Your task to perform on an android device: Open the calendar app, open the side menu, and click the "Day" option Image 0: 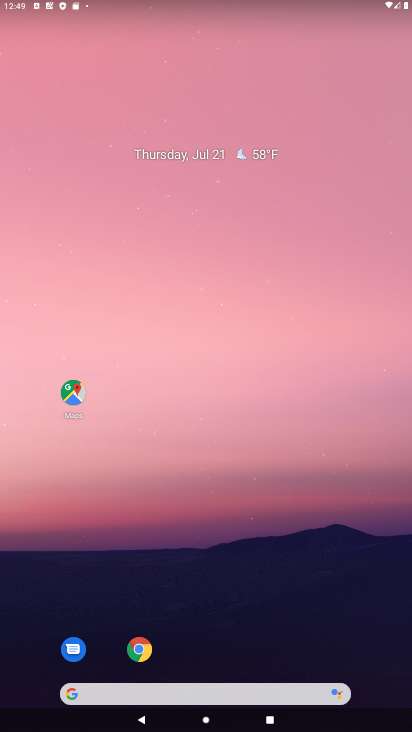
Step 0: drag from (392, 673) to (365, 175)
Your task to perform on an android device: Open the calendar app, open the side menu, and click the "Day" option Image 1: 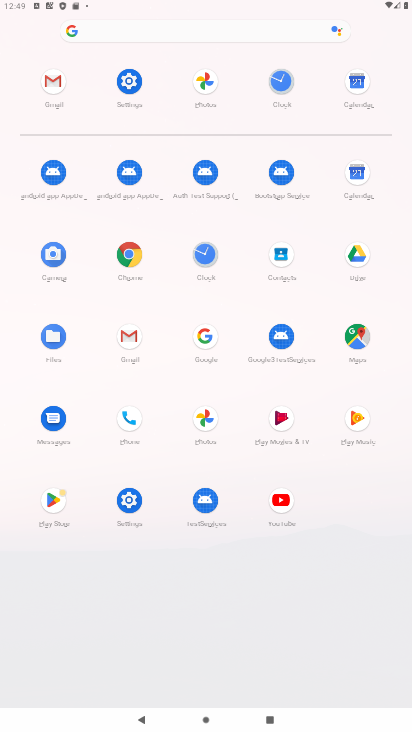
Step 1: click (355, 167)
Your task to perform on an android device: Open the calendar app, open the side menu, and click the "Day" option Image 2: 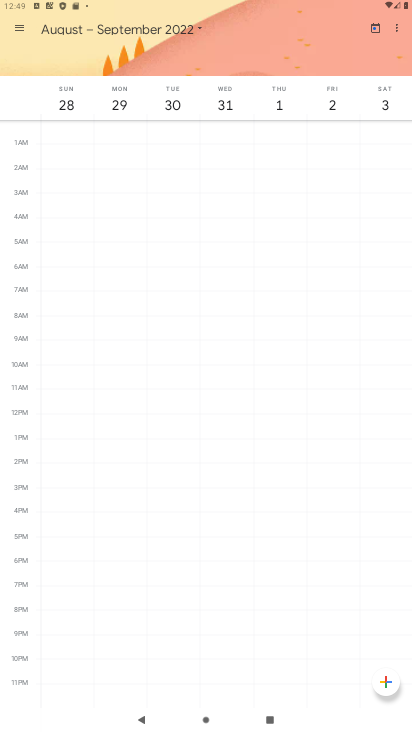
Step 2: click (16, 25)
Your task to perform on an android device: Open the calendar app, open the side menu, and click the "Day" option Image 3: 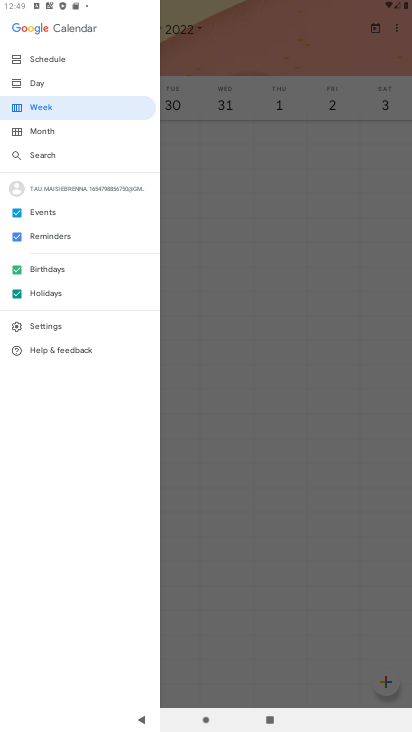
Step 3: click (34, 81)
Your task to perform on an android device: Open the calendar app, open the side menu, and click the "Day" option Image 4: 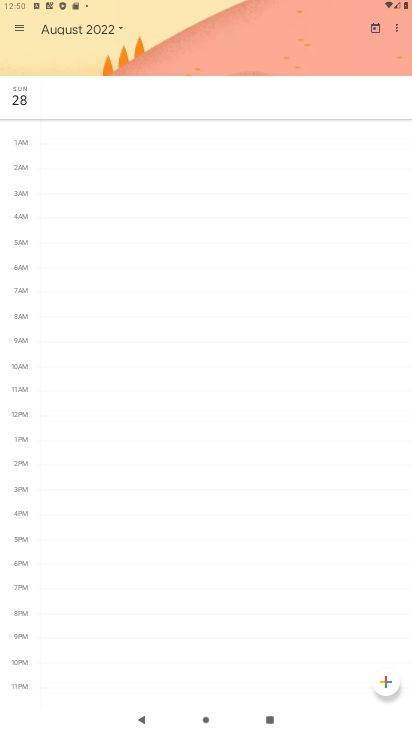
Step 4: task complete